Your task to perform on an android device: Open calendar and show me the second week of next month Image 0: 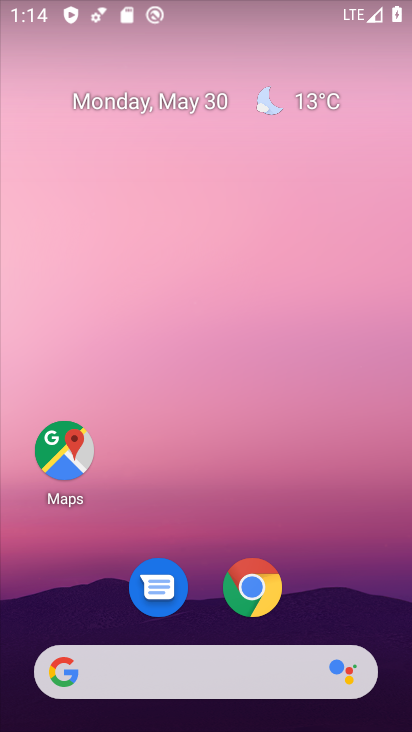
Step 0: drag from (288, 267) to (229, 0)
Your task to perform on an android device: Open calendar and show me the second week of next month Image 1: 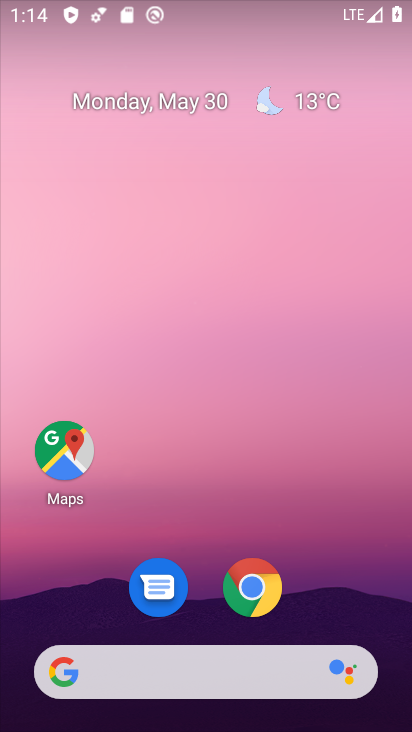
Step 1: drag from (346, 484) to (250, 15)
Your task to perform on an android device: Open calendar and show me the second week of next month Image 2: 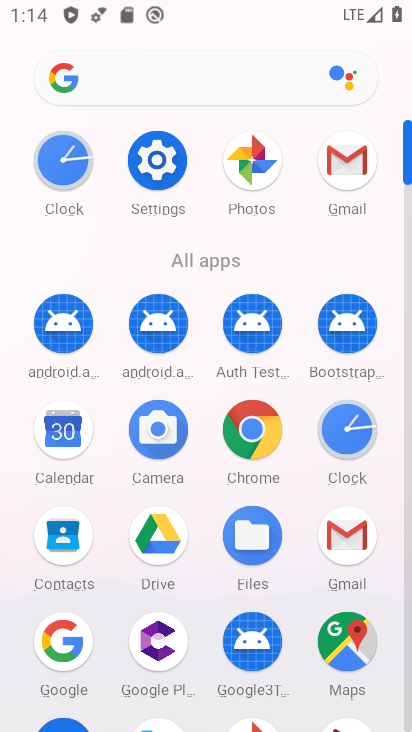
Step 2: click (54, 453)
Your task to perform on an android device: Open calendar and show me the second week of next month Image 3: 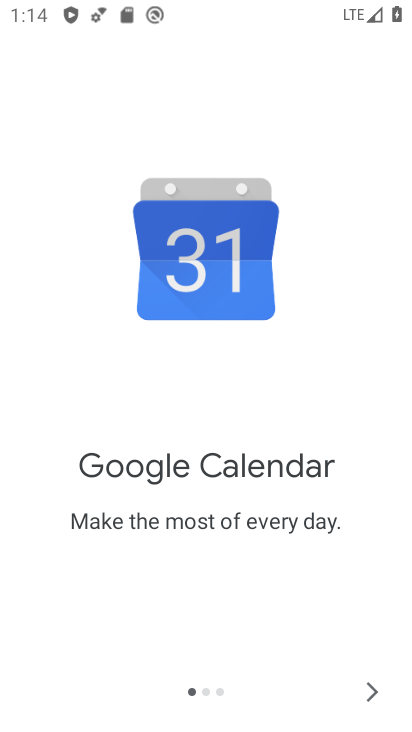
Step 3: click (367, 692)
Your task to perform on an android device: Open calendar and show me the second week of next month Image 4: 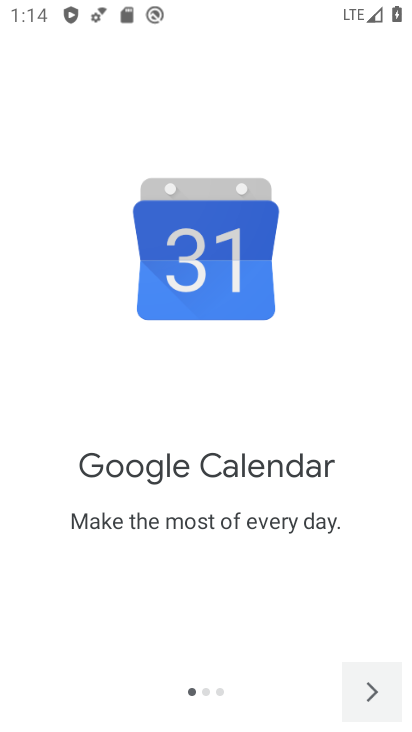
Step 4: click (376, 686)
Your task to perform on an android device: Open calendar and show me the second week of next month Image 5: 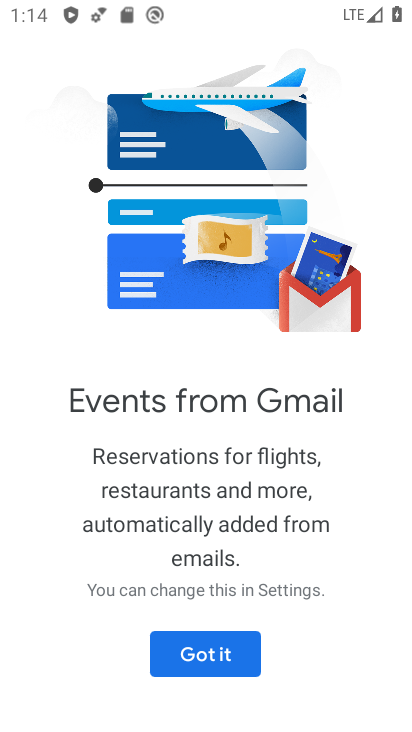
Step 5: click (209, 647)
Your task to perform on an android device: Open calendar and show me the second week of next month Image 6: 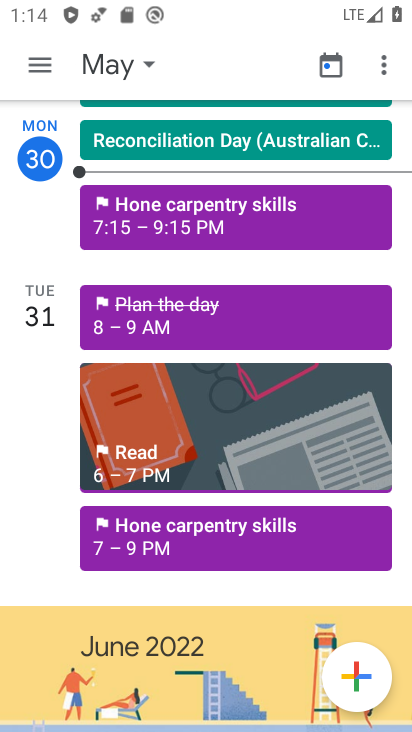
Step 6: click (45, 51)
Your task to perform on an android device: Open calendar and show me the second week of next month Image 7: 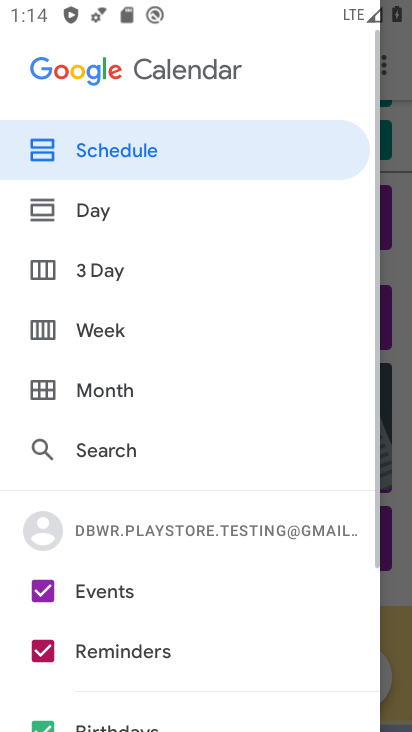
Step 7: click (110, 335)
Your task to perform on an android device: Open calendar and show me the second week of next month Image 8: 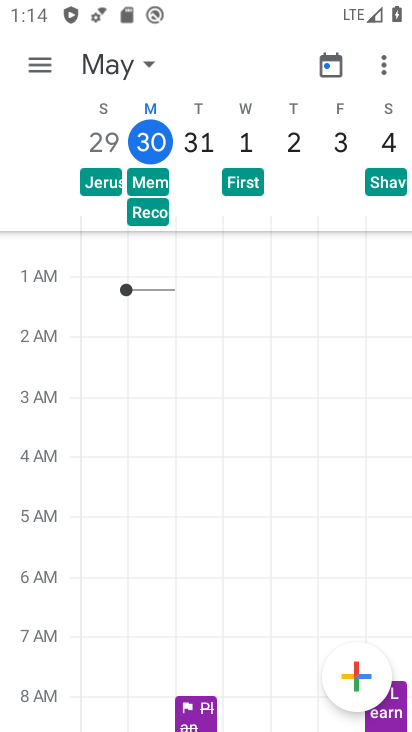
Step 8: click (127, 65)
Your task to perform on an android device: Open calendar and show me the second week of next month Image 9: 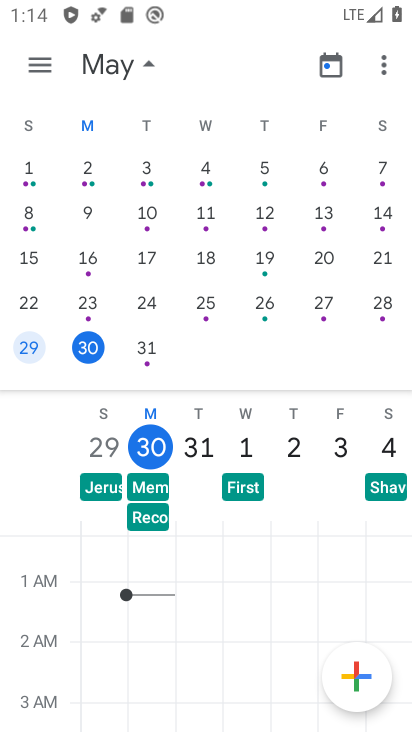
Step 9: drag from (370, 253) to (4, 228)
Your task to perform on an android device: Open calendar and show me the second week of next month Image 10: 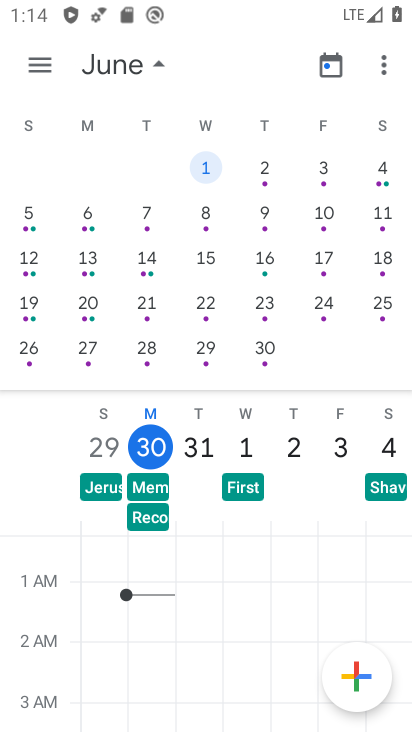
Step 10: click (44, 226)
Your task to perform on an android device: Open calendar and show me the second week of next month Image 11: 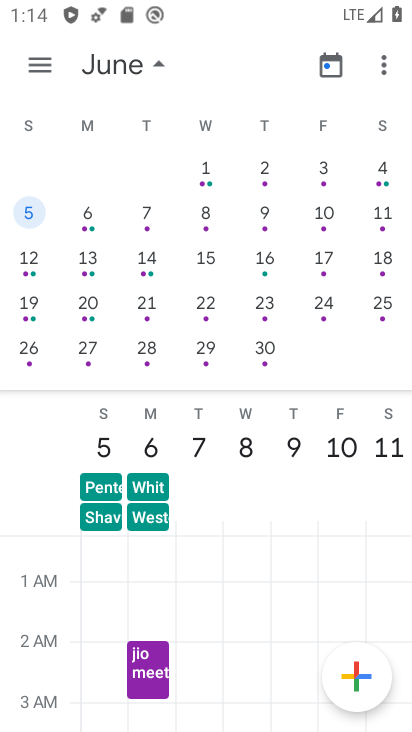
Step 11: task complete